Your task to perform on an android device: When is my next appointment? Image 0: 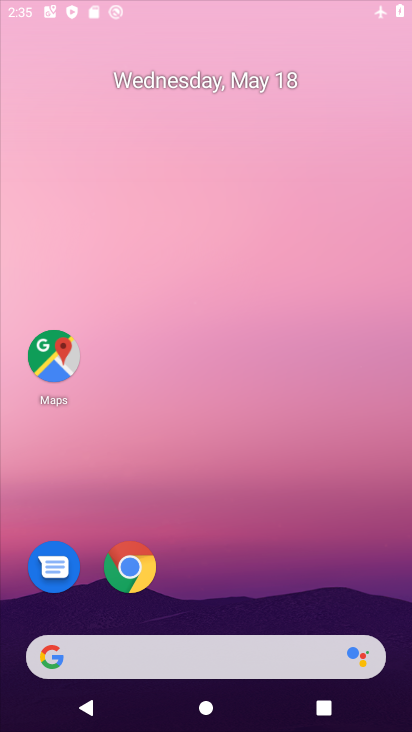
Step 0: drag from (271, 499) to (258, 149)
Your task to perform on an android device: When is my next appointment? Image 1: 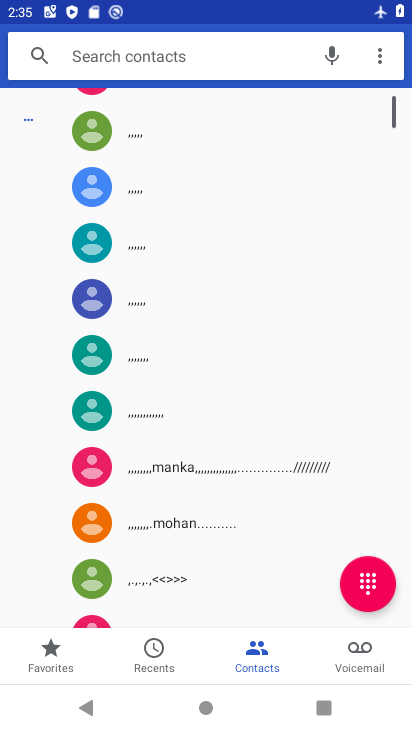
Step 1: press home button
Your task to perform on an android device: When is my next appointment? Image 2: 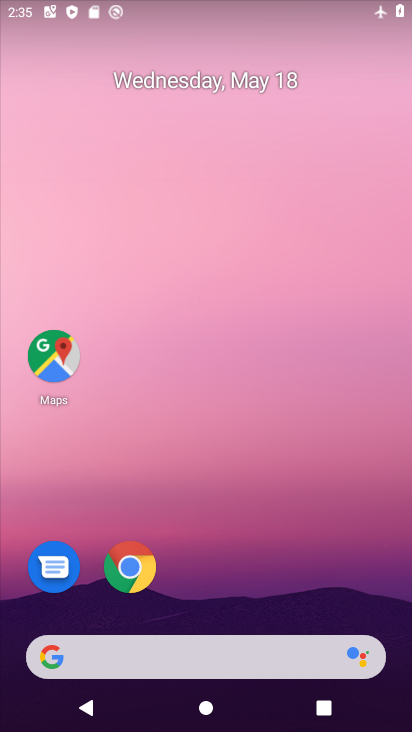
Step 2: drag from (233, 557) to (245, 282)
Your task to perform on an android device: When is my next appointment? Image 3: 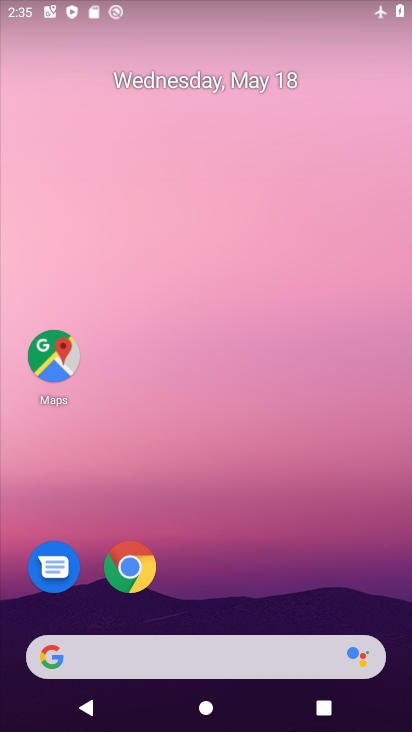
Step 3: drag from (213, 600) to (218, 300)
Your task to perform on an android device: When is my next appointment? Image 4: 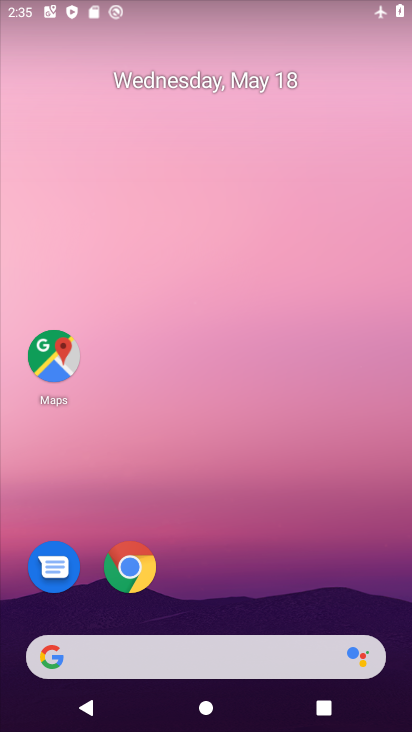
Step 4: drag from (220, 625) to (204, 265)
Your task to perform on an android device: When is my next appointment? Image 5: 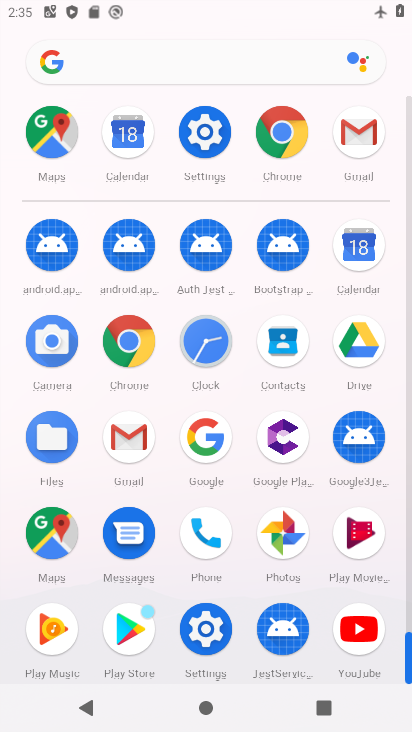
Step 5: click (364, 237)
Your task to perform on an android device: When is my next appointment? Image 6: 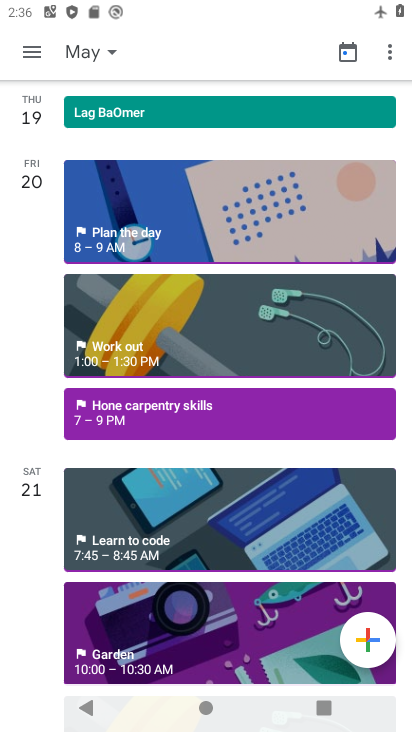
Step 6: task complete